Your task to perform on an android device: set an alarm Image 0: 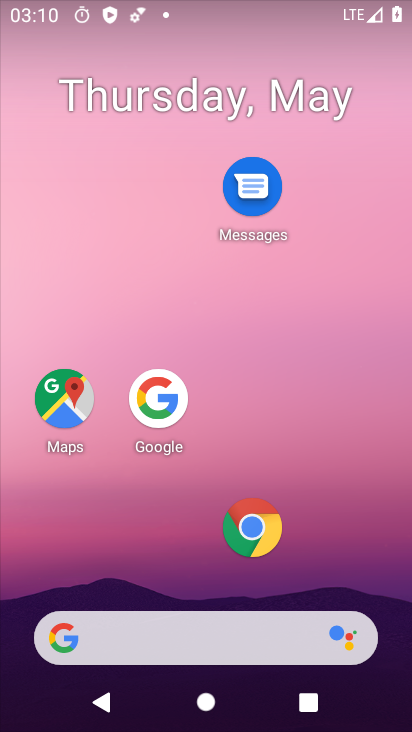
Step 0: drag from (193, 528) to (323, 63)
Your task to perform on an android device: set an alarm Image 1: 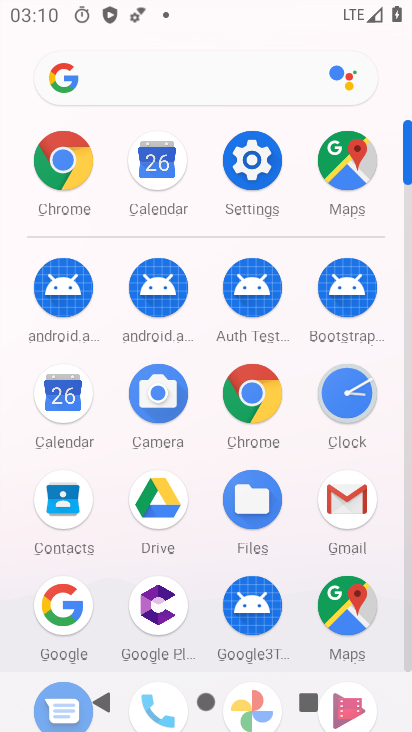
Step 1: click (363, 385)
Your task to perform on an android device: set an alarm Image 2: 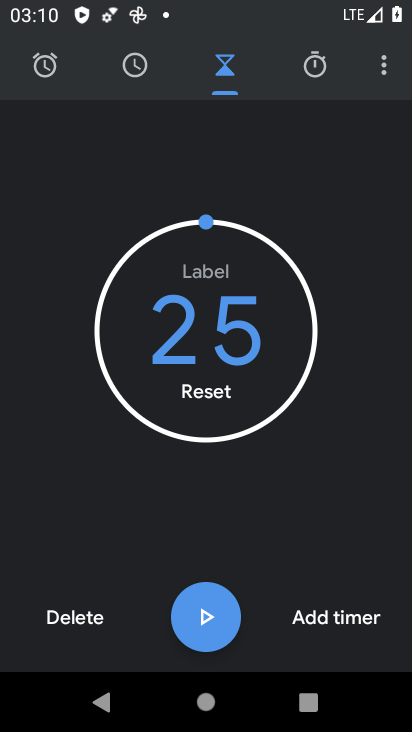
Step 2: click (35, 65)
Your task to perform on an android device: set an alarm Image 3: 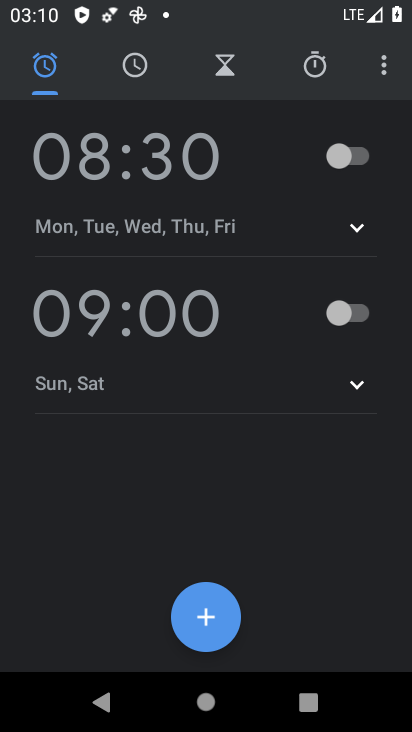
Step 3: click (339, 150)
Your task to perform on an android device: set an alarm Image 4: 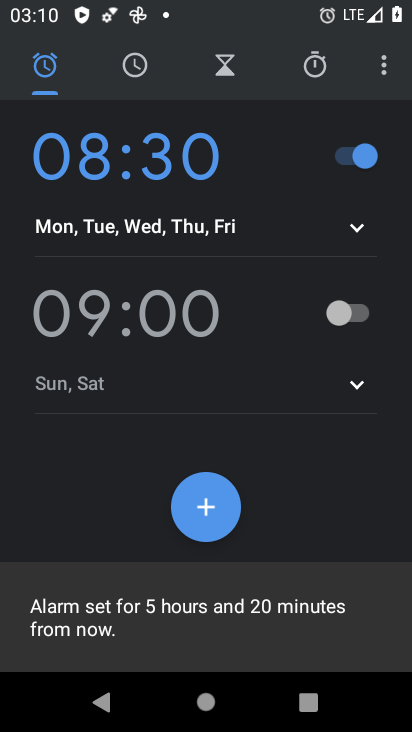
Step 4: task complete